Your task to perform on an android device: set an alarm Image 0: 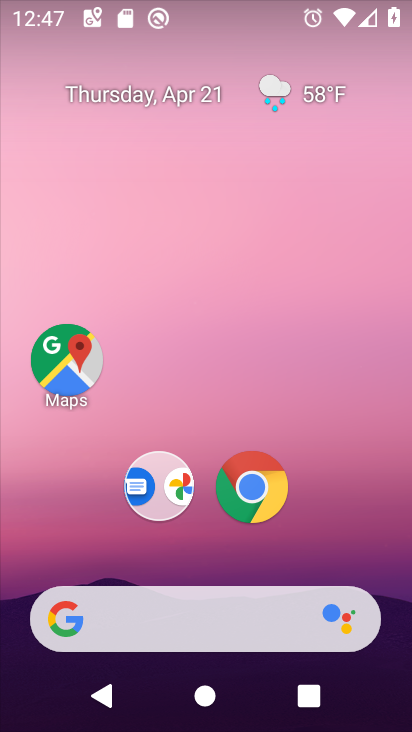
Step 0: click (300, 250)
Your task to perform on an android device: set an alarm Image 1: 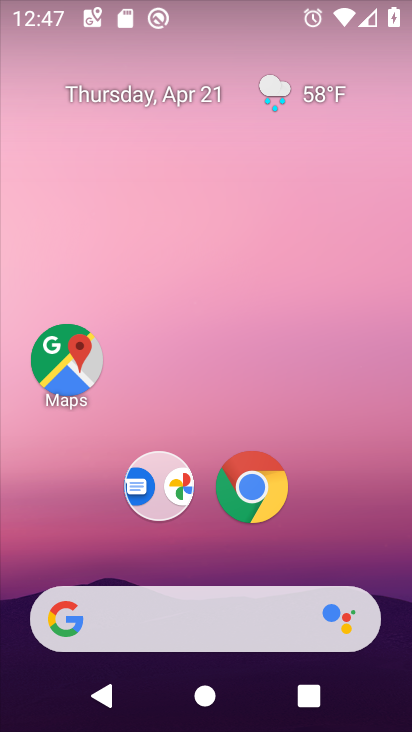
Step 1: drag from (287, 656) to (294, 105)
Your task to perform on an android device: set an alarm Image 2: 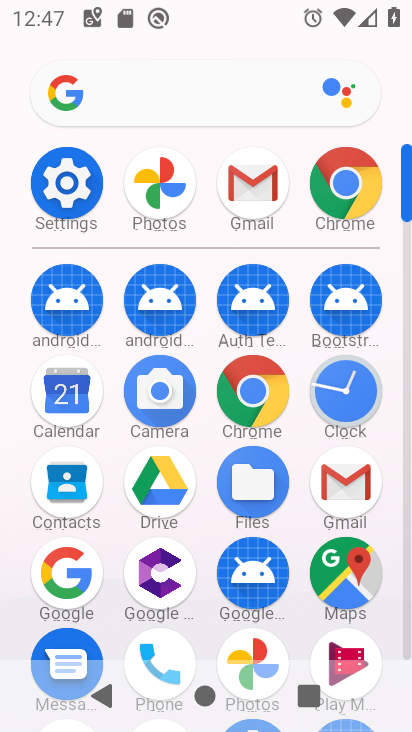
Step 2: click (347, 391)
Your task to perform on an android device: set an alarm Image 3: 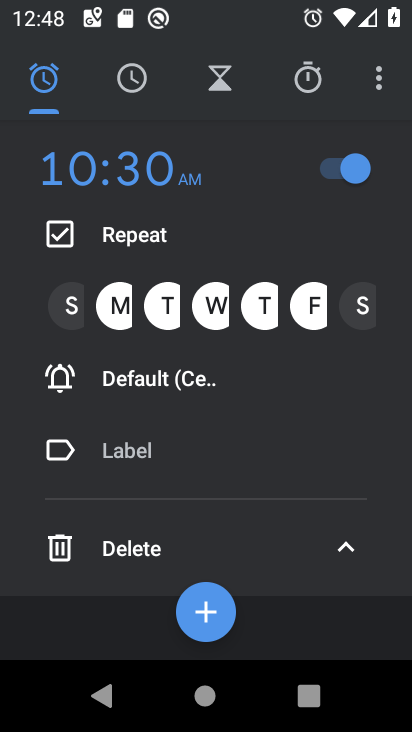
Step 3: click (81, 301)
Your task to perform on an android device: set an alarm Image 4: 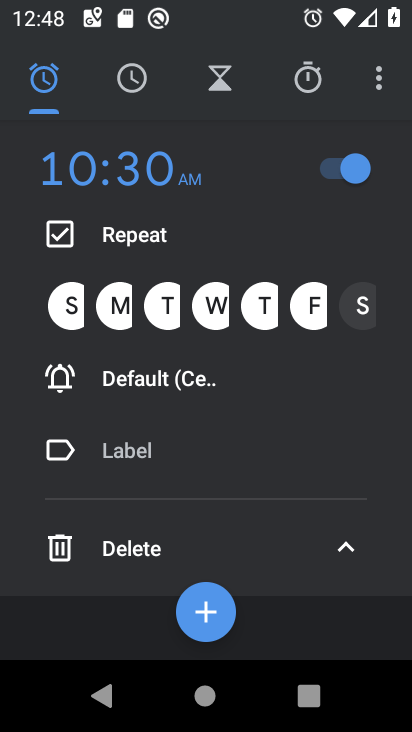
Step 4: task complete